Your task to perform on an android device: check google app version Image 0: 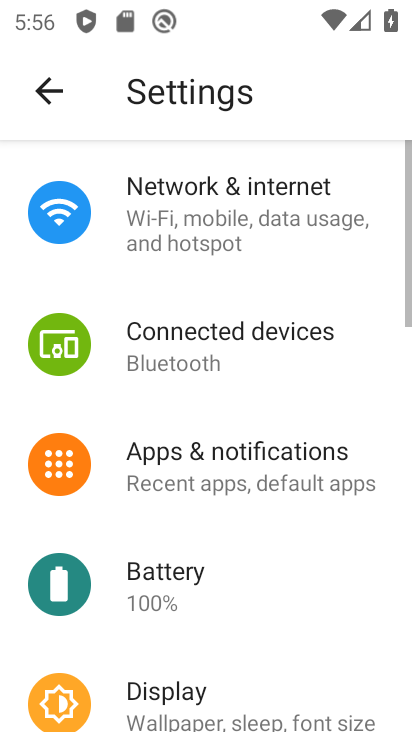
Step 0: press home button
Your task to perform on an android device: check google app version Image 1: 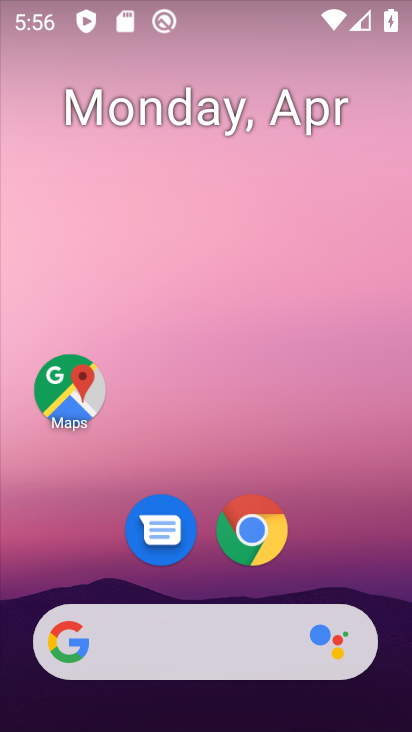
Step 1: drag from (206, 582) to (195, 121)
Your task to perform on an android device: check google app version Image 2: 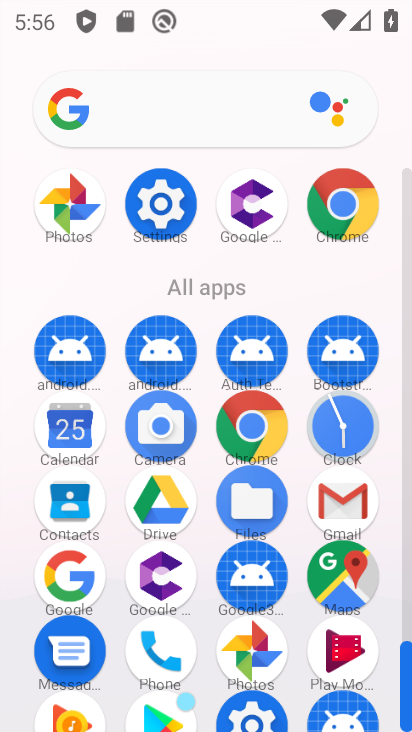
Step 2: click (65, 568)
Your task to perform on an android device: check google app version Image 3: 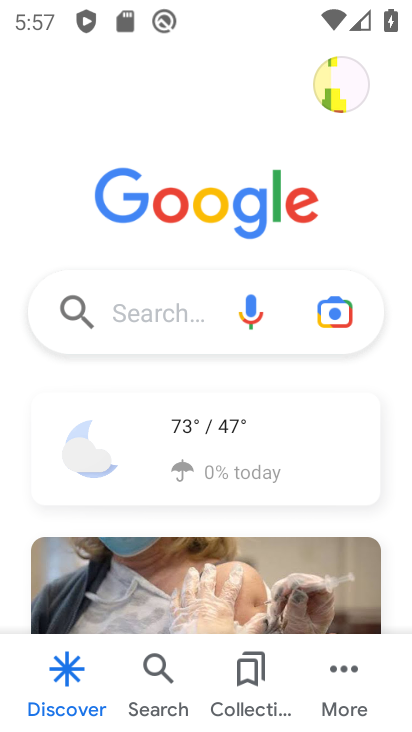
Step 3: click (337, 669)
Your task to perform on an android device: check google app version Image 4: 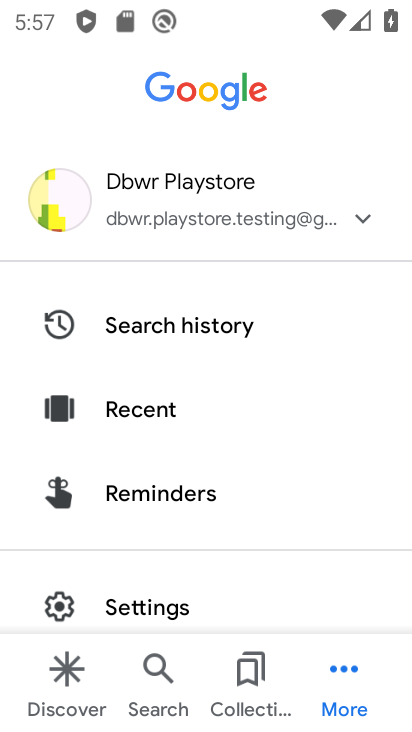
Step 4: drag from (195, 604) to (220, 230)
Your task to perform on an android device: check google app version Image 5: 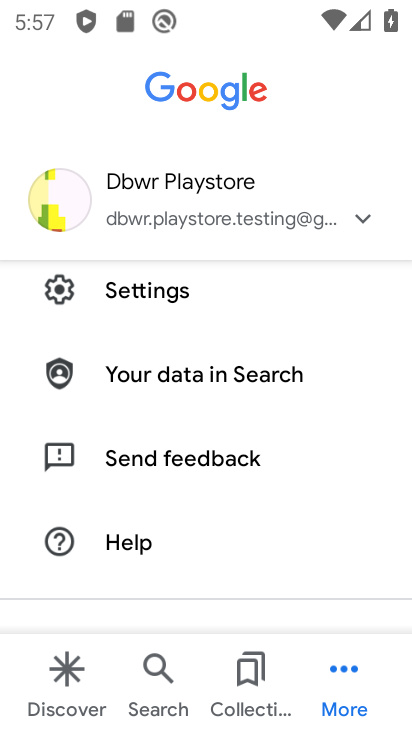
Step 5: click (157, 294)
Your task to perform on an android device: check google app version Image 6: 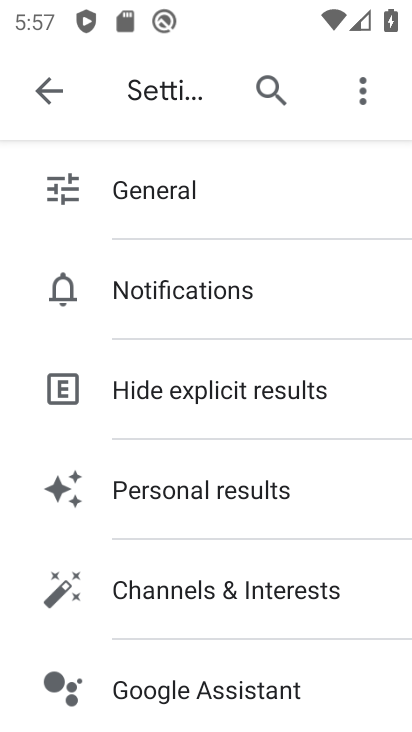
Step 6: drag from (178, 611) to (196, 229)
Your task to perform on an android device: check google app version Image 7: 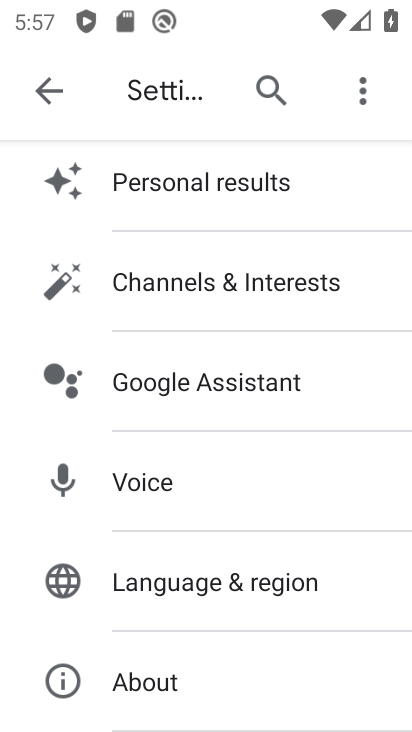
Step 7: click (186, 665)
Your task to perform on an android device: check google app version Image 8: 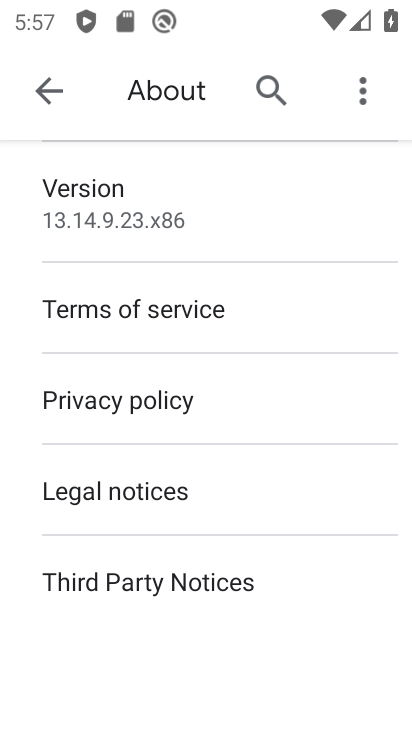
Step 8: task complete